Your task to perform on an android device: toggle priority inbox in the gmail app Image 0: 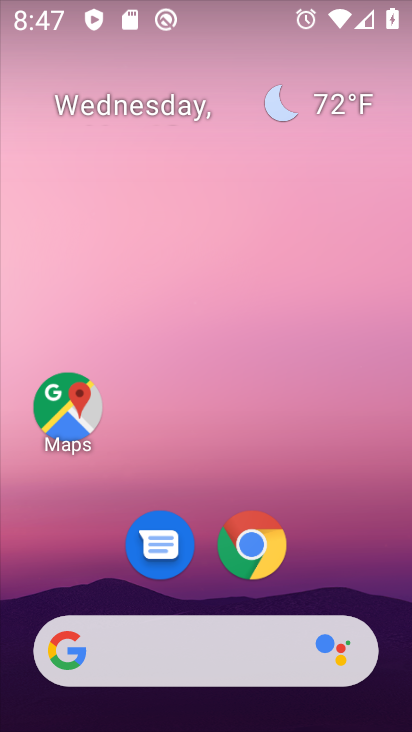
Step 0: drag from (351, 709) to (179, 118)
Your task to perform on an android device: toggle priority inbox in the gmail app Image 1: 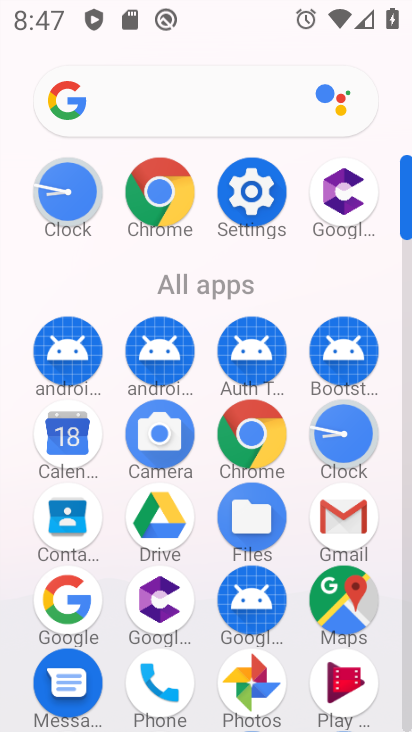
Step 1: click (339, 513)
Your task to perform on an android device: toggle priority inbox in the gmail app Image 2: 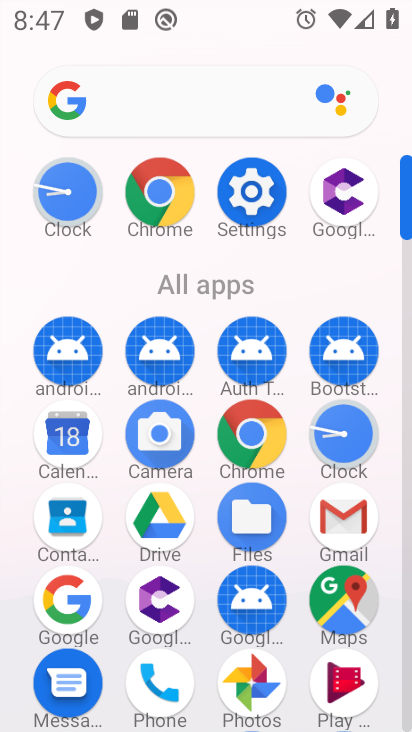
Step 2: click (339, 507)
Your task to perform on an android device: toggle priority inbox in the gmail app Image 3: 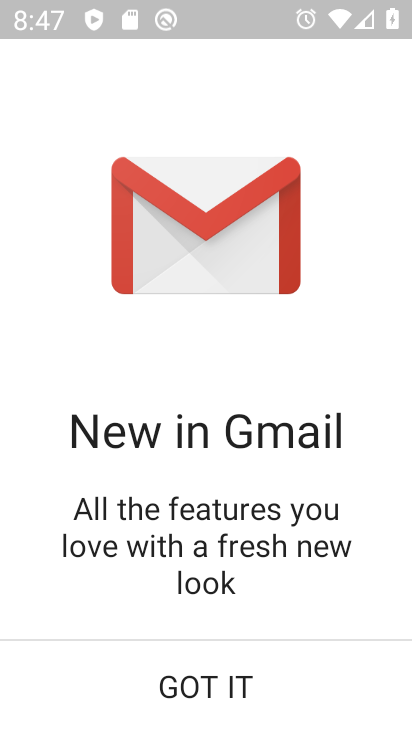
Step 3: click (279, 478)
Your task to perform on an android device: toggle priority inbox in the gmail app Image 4: 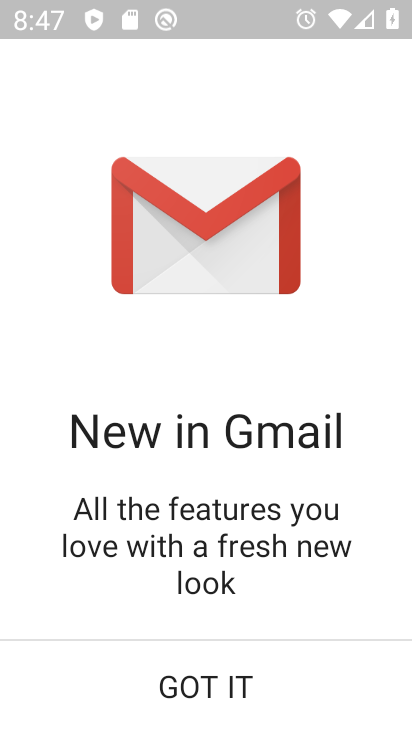
Step 4: click (238, 686)
Your task to perform on an android device: toggle priority inbox in the gmail app Image 5: 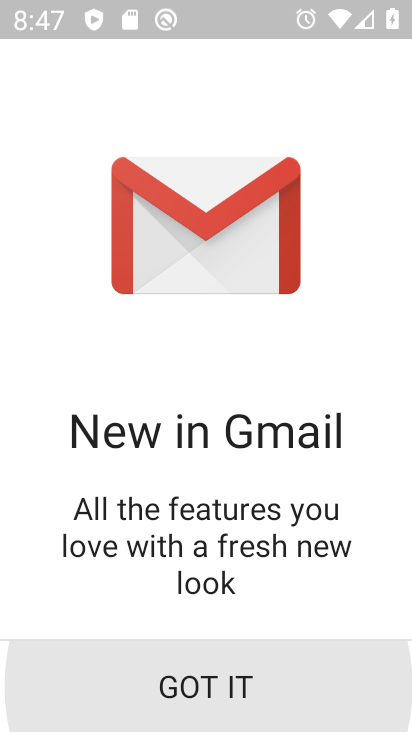
Step 5: click (238, 686)
Your task to perform on an android device: toggle priority inbox in the gmail app Image 6: 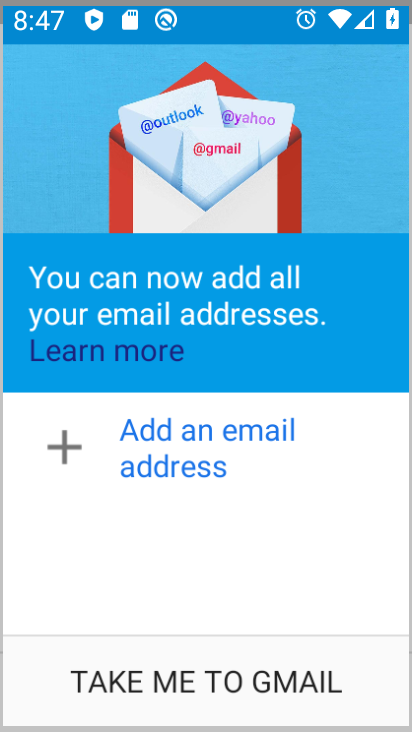
Step 6: click (238, 686)
Your task to perform on an android device: toggle priority inbox in the gmail app Image 7: 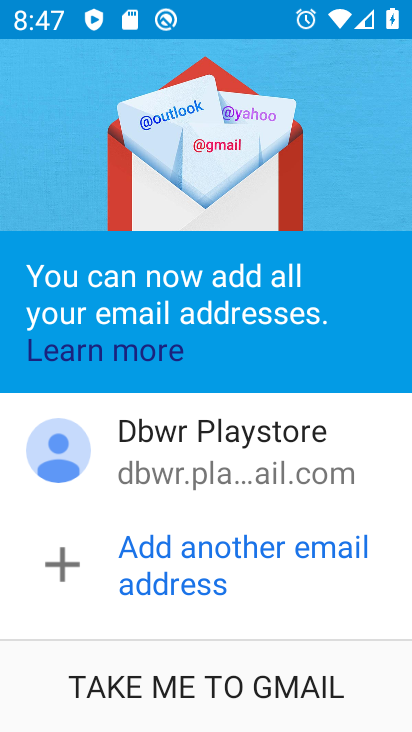
Step 7: click (238, 686)
Your task to perform on an android device: toggle priority inbox in the gmail app Image 8: 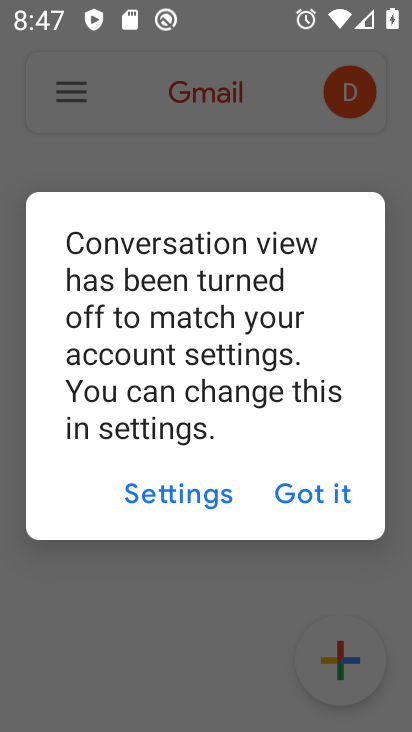
Step 8: click (238, 686)
Your task to perform on an android device: toggle priority inbox in the gmail app Image 9: 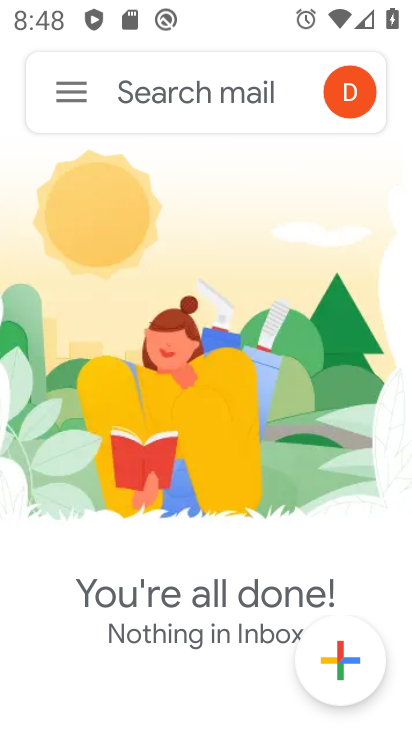
Step 9: click (69, 93)
Your task to perform on an android device: toggle priority inbox in the gmail app Image 10: 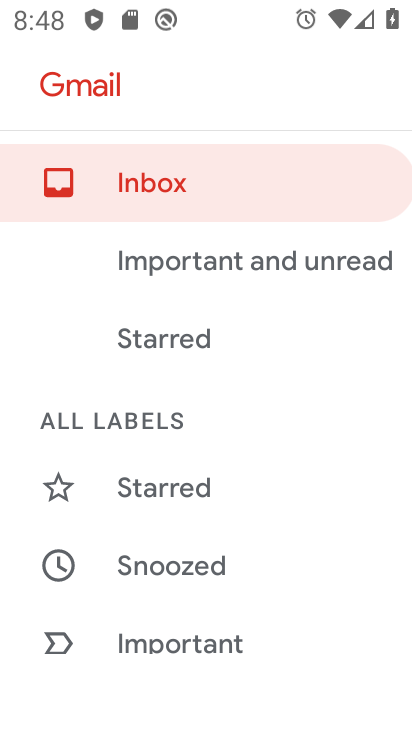
Step 10: drag from (196, 613) to (229, 203)
Your task to perform on an android device: toggle priority inbox in the gmail app Image 11: 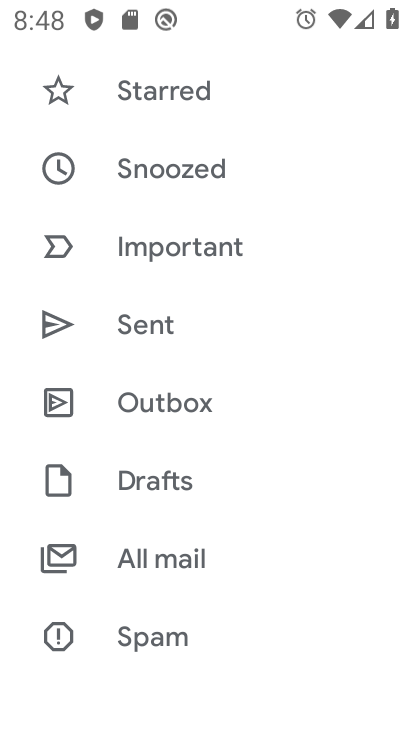
Step 11: drag from (166, 549) to (77, 210)
Your task to perform on an android device: toggle priority inbox in the gmail app Image 12: 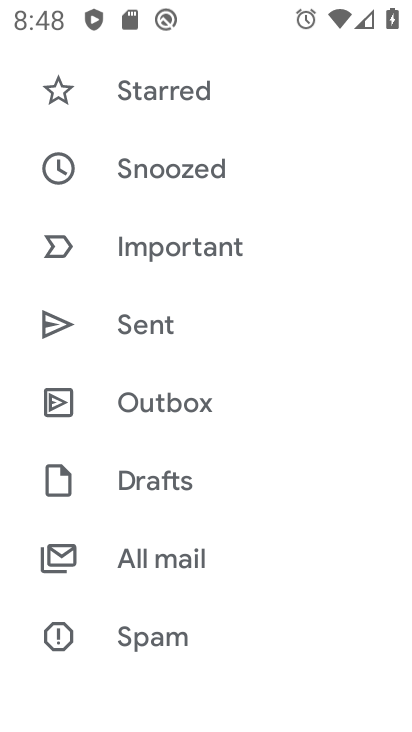
Step 12: drag from (148, 589) to (145, 341)
Your task to perform on an android device: toggle priority inbox in the gmail app Image 13: 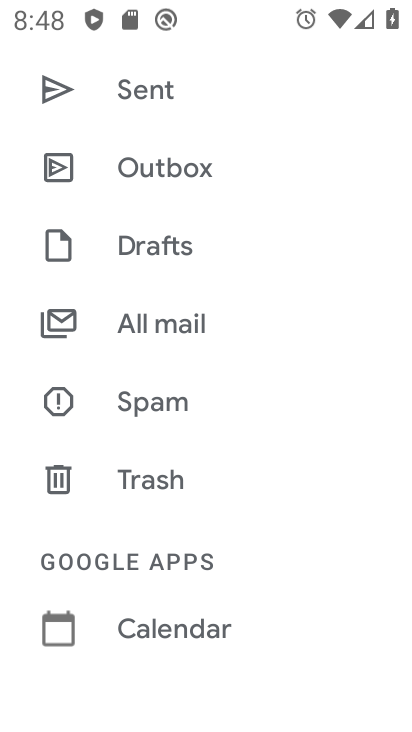
Step 13: drag from (160, 401) to (132, 187)
Your task to perform on an android device: toggle priority inbox in the gmail app Image 14: 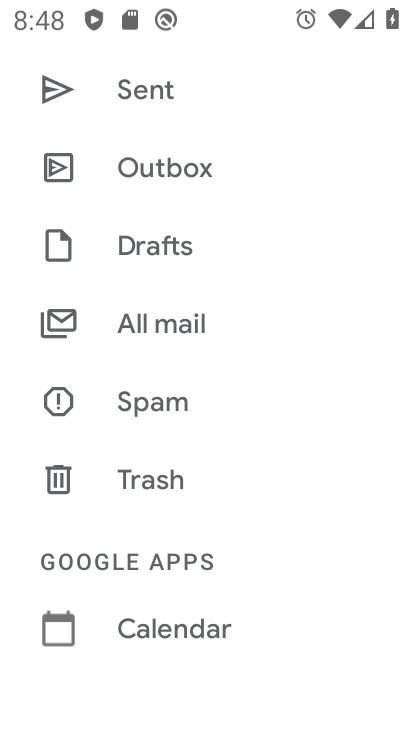
Step 14: drag from (174, 570) to (141, 253)
Your task to perform on an android device: toggle priority inbox in the gmail app Image 15: 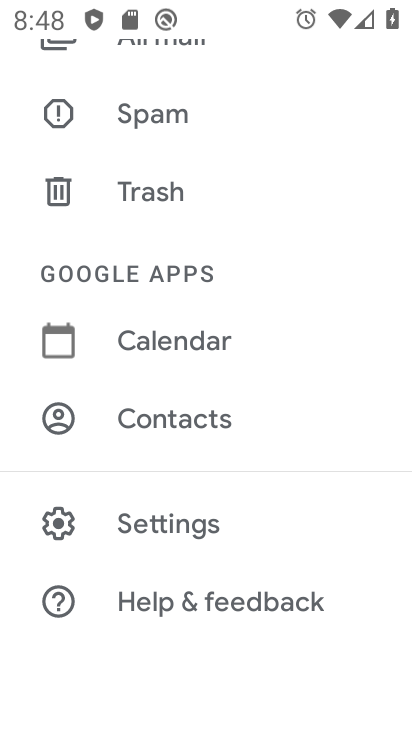
Step 15: drag from (207, 416) to (217, 198)
Your task to perform on an android device: toggle priority inbox in the gmail app Image 16: 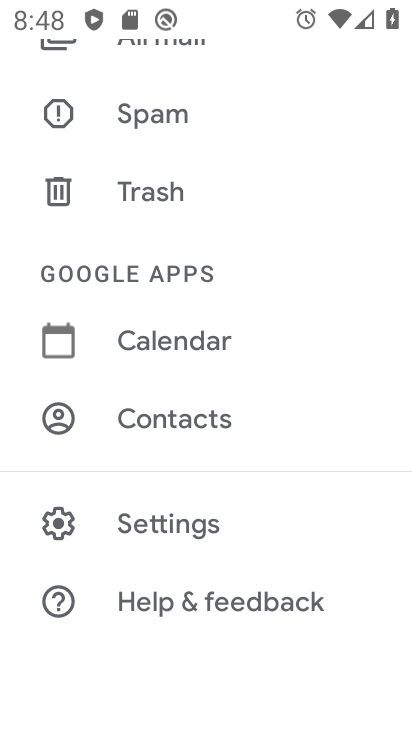
Step 16: click (153, 529)
Your task to perform on an android device: toggle priority inbox in the gmail app Image 17: 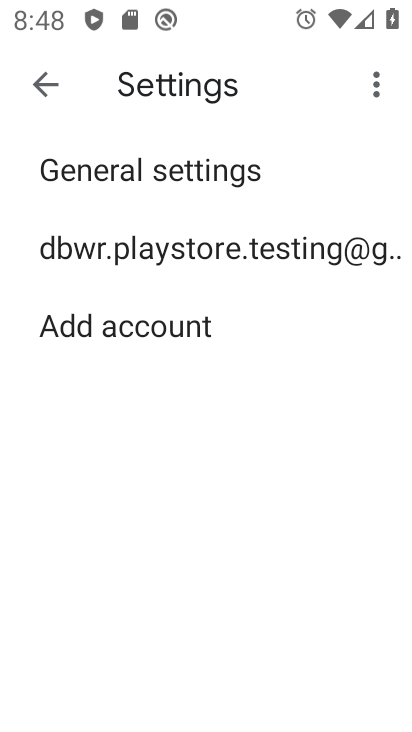
Step 17: click (137, 252)
Your task to perform on an android device: toggle priority inbox in the gmail app Image 18: 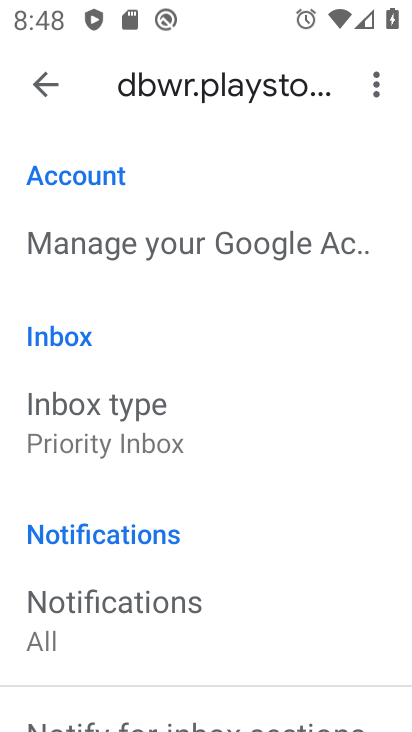
Step 18: task complete